Your task to perform on an android device: Open sound settings Image 0: 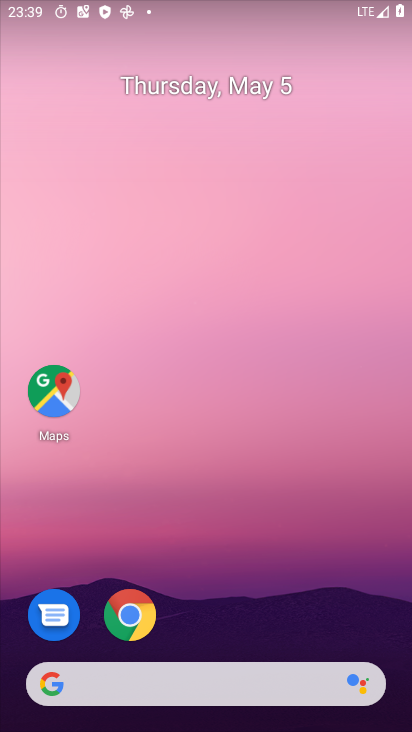
Step 0: drag from (220, 619) to (259, 11)
Your task to perform on an android device: Open sound settings Image 1: 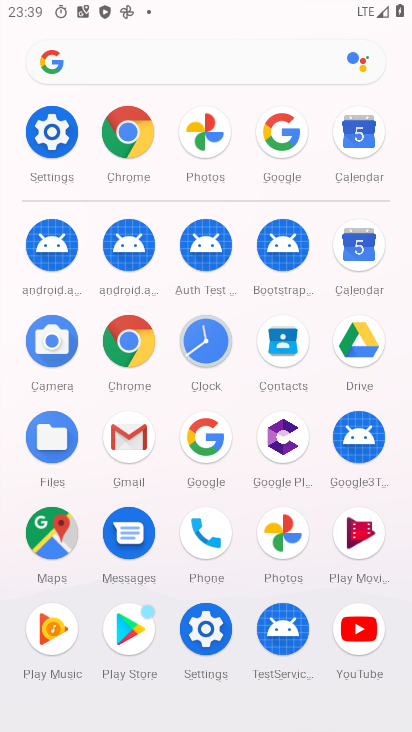
Step 1: click (202, 632)
Your task to perform on an android device: Open sound settings Image 2: 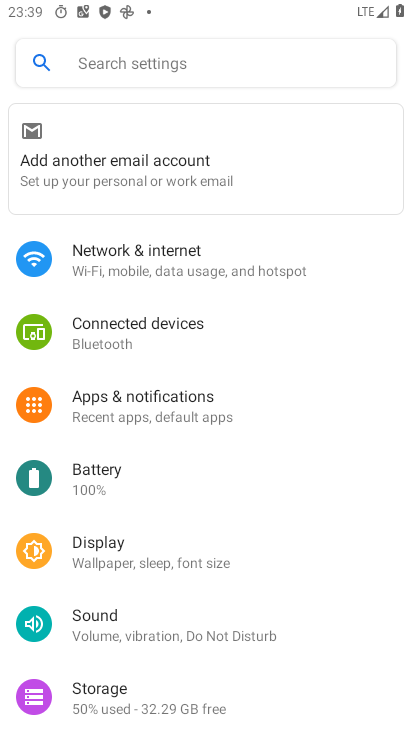
Step 2: click (128, 633)
Your task to perform on an android device: Open sound settings Image 3: 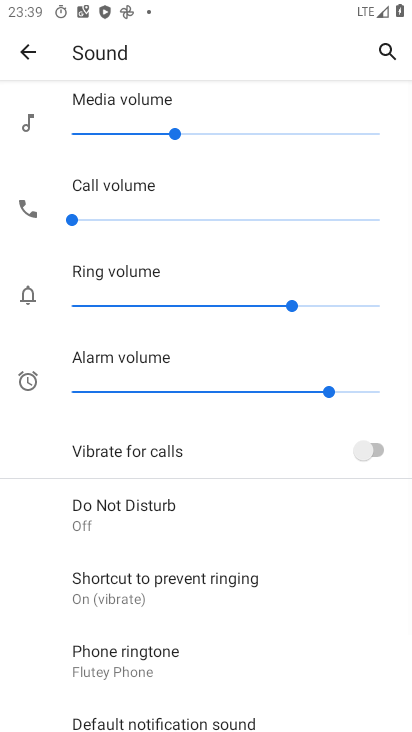
Step 3: task complete